Your task to perform on an android device: Show me productivity apps on the Play Store Image 0: 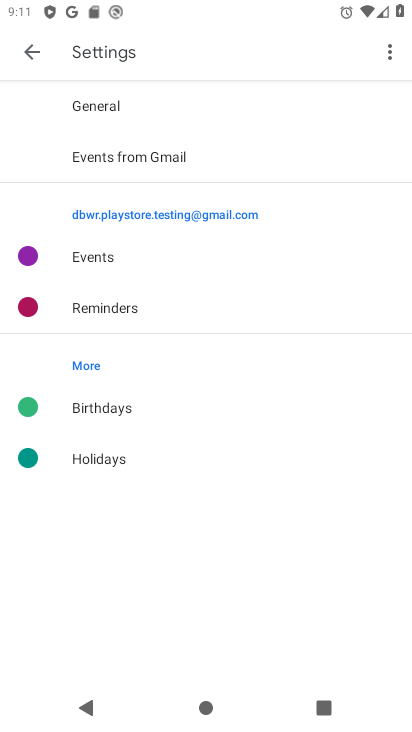
Step 0: press home button
Your task to perform on an android device: Show me productivity apps on the Play Store Image 1: 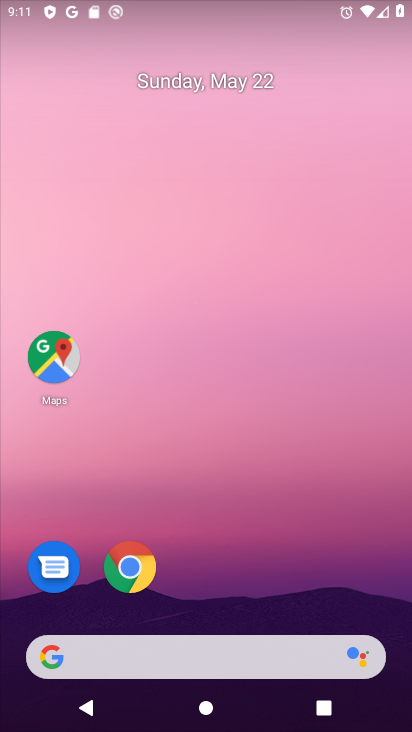
Step 1: drag from (195, 610) to (228, 86)
Your task to perform on an android device: Show me productivity apps on the Play Store Image 2: 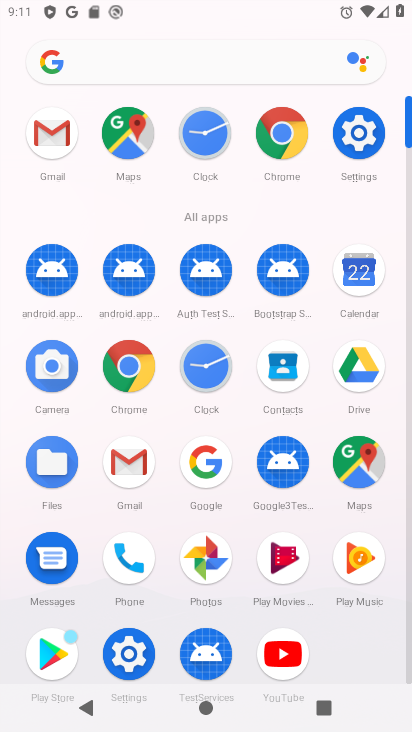
Step 2: click (53, 654)
Your task to perform on an android device: Show me productivity apps on the Play Store Image 3: 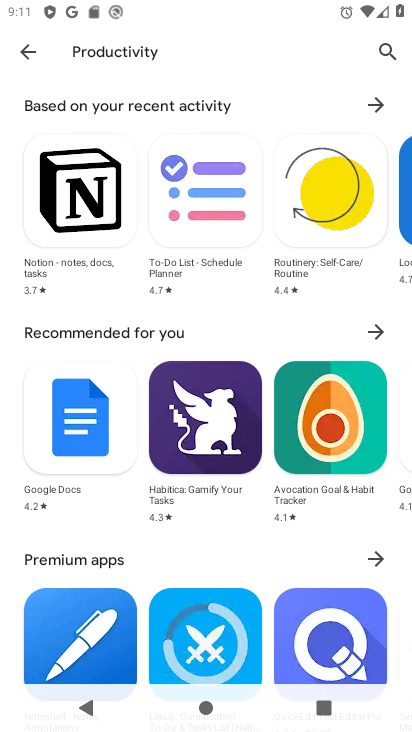
Step 3: task complete